Your task to perform on an android device: open a bookmark in the chrome app Image 0: 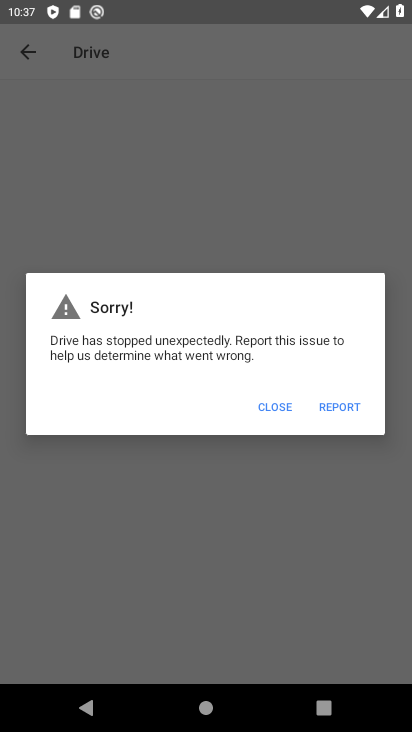
Step 0: press home button
Your task to perform on an android device: open a bookmark in the chrome app Image 1: 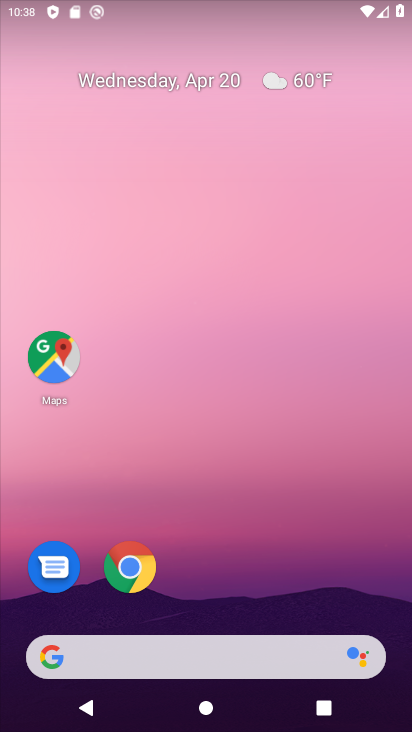
Step 1: drag from (301, 589) to (254, 160)
Your task to perform on an android device: open a bookmark in the chrome app Image 2: 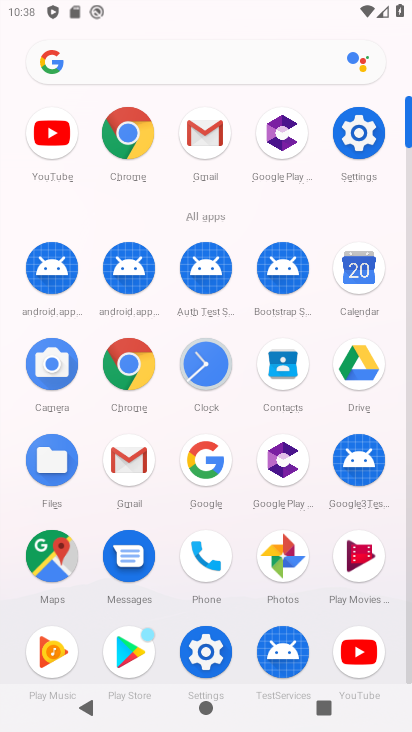
Step 2: click (123, 380)
Your task to perform on an android device: open a bookmark in the chrome app Image 3: 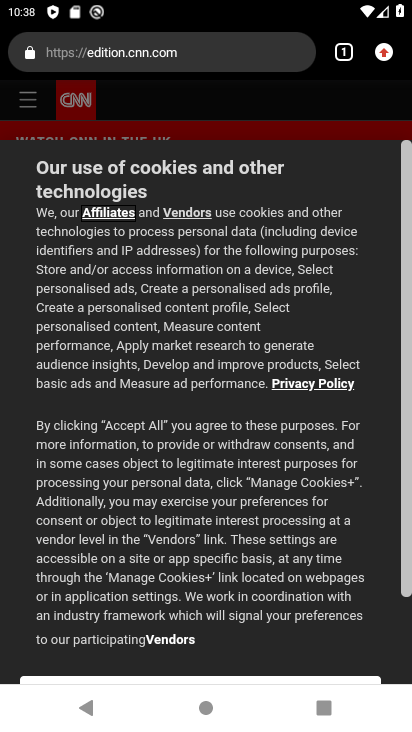
Step 3: click (385, 54)
Your task to perform on an android device: open a bookmark in the chrome app Image 4: 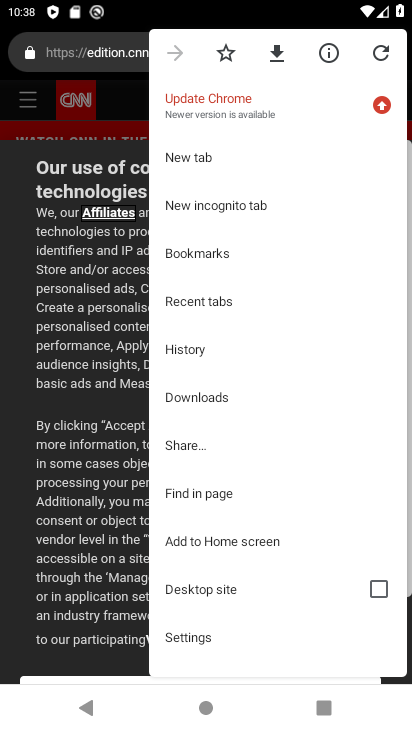
Step 4: click (204, 256)
Your task to perform on an android device: open a bookmark in the chrome app Image 5: 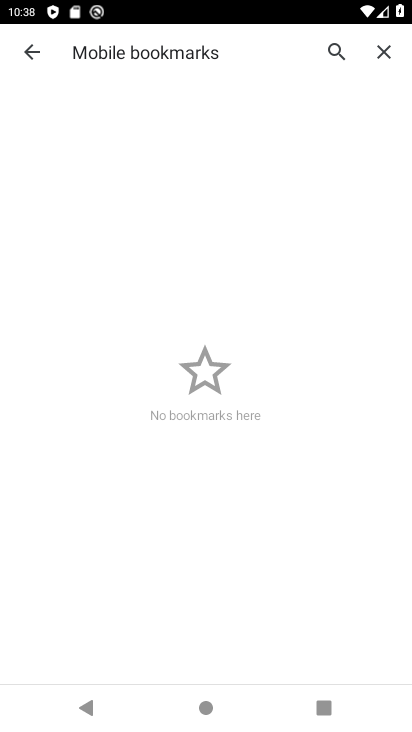
Step 5: task complete